Your task to perform on an android device: Find coffee shops on Maps Image 0: 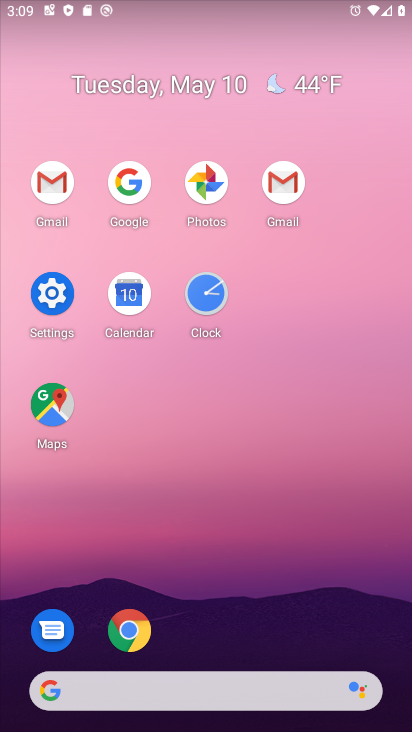
Step 0: click (52, 403)
Your task to perform on an android device: Find coffee shops on Maps Image 1: 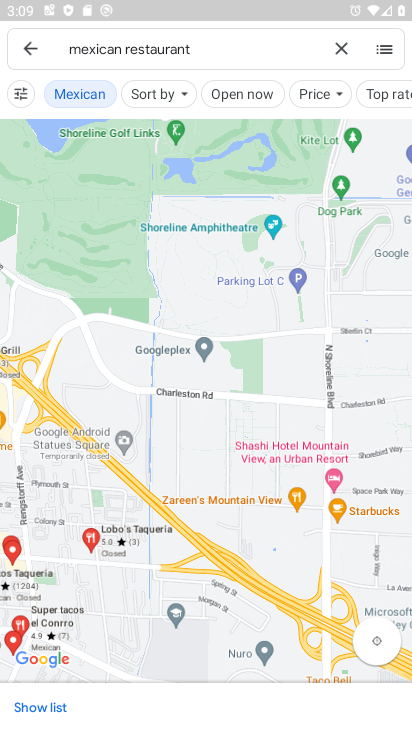
Step 1: click (347, 47)
Your task to perform on an android device: Find coffee shops on Maps Image 2: 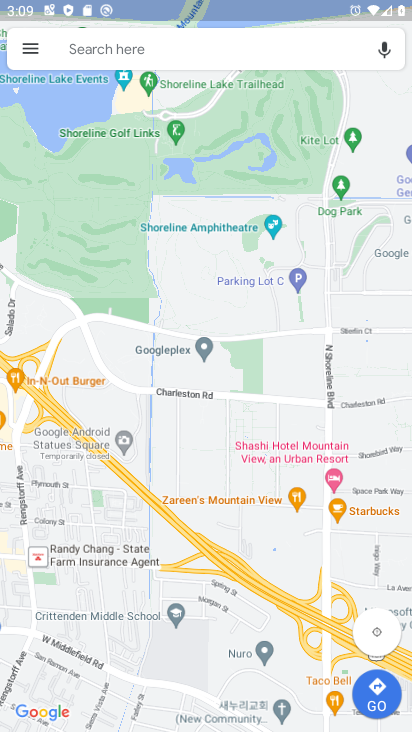
Step 2: click (192, 53)
Your task to perform on an android device: Find coffee shops on Maps Image 3: 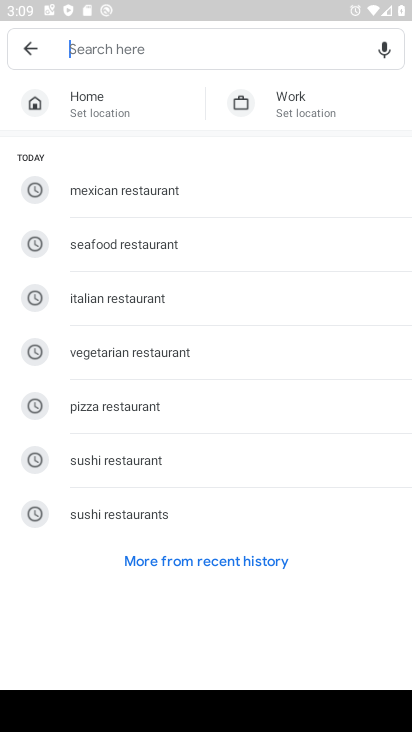
Step 3: type "coffee shops"
Your task to perform on an android device: Find coffee shops on Maps Image 4: 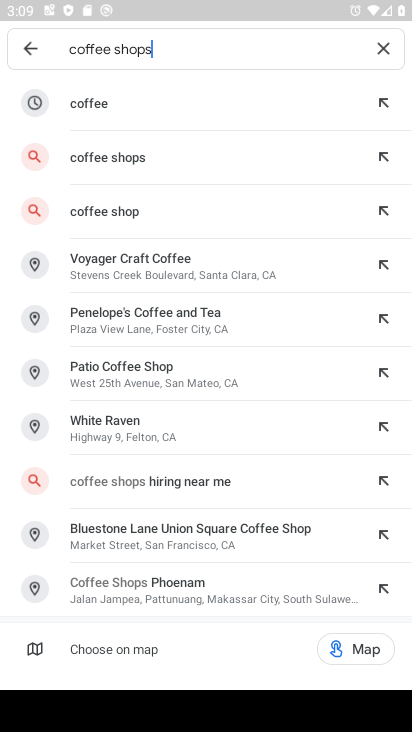
Step 4: click (199, 167)
Your task to perform on an android device: Find coffee shops on Maps Image 5: 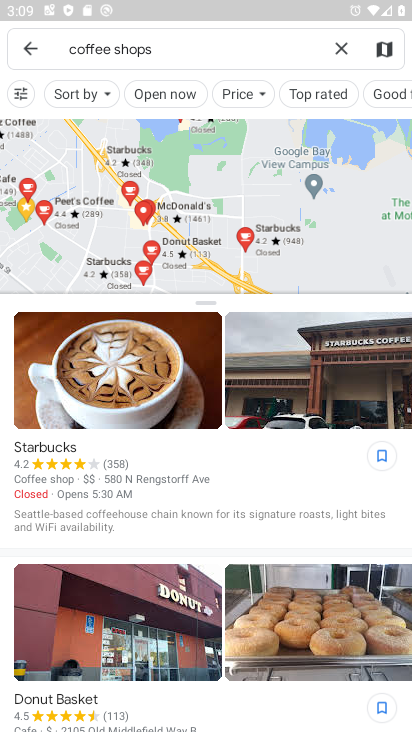
Step 5: task complete